Your task to perform on an android device: Go to Maps Image 0: 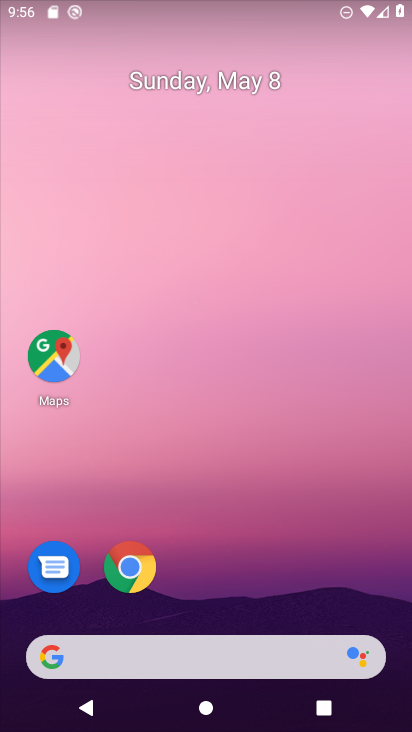
Step 0: click (51, 345)
Your task to perform on an android device: Go to Maps Image 1: 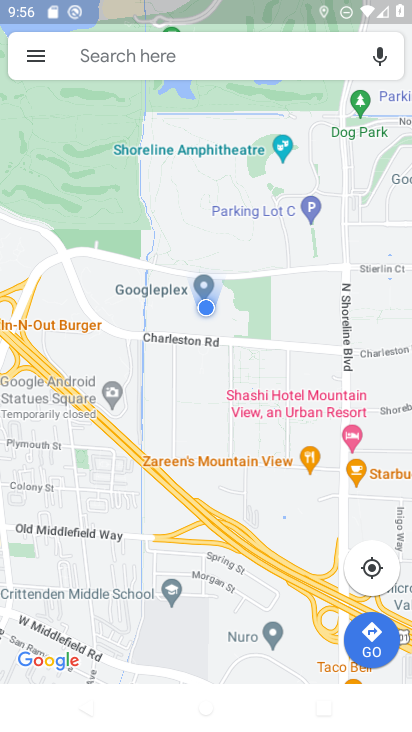
Step 1: task complete